Your task to perform on an android device: toggle improve location accuracy Image 0: 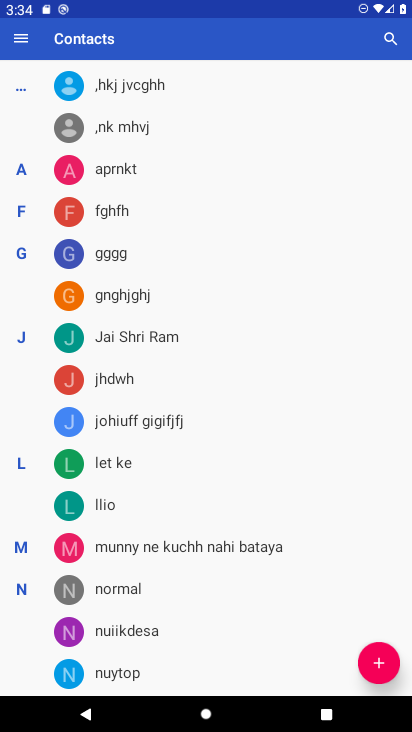
Step 0: press home button
Your task to perform on an android device: toggle improve location accuracy Image 1: 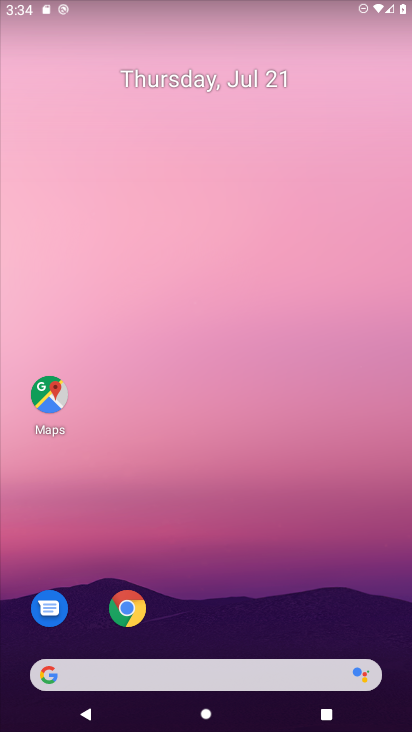
Step 1: drag from (202, 630) to (177, 135)
Your task to perform on an android device: toggle improve location accuracy Image 2: 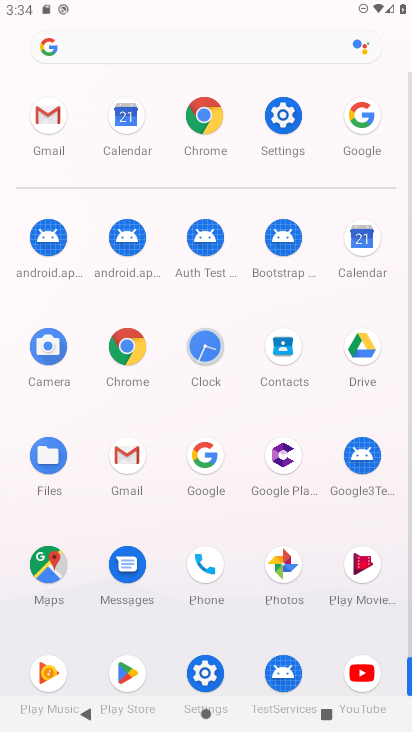
Step 2: click (265, 129)
Your task to perform on an android device: toggle improve location accuracy Image 3: 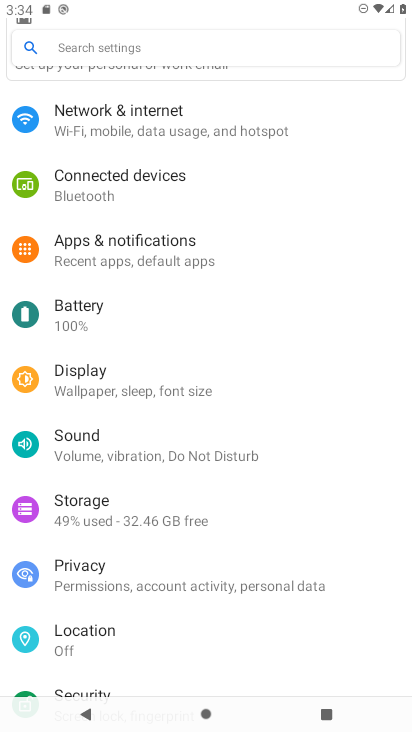
Step 3: click (113, 627)
Your task to perform on an android device: toggle improve location accuracy Image 4: 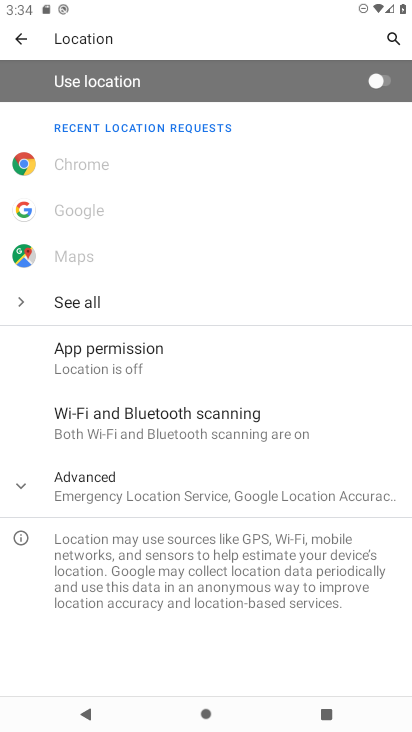
Step 4: click (146, 488)
Your task to perform on an android device: toggle improve location accuracy Image 5: 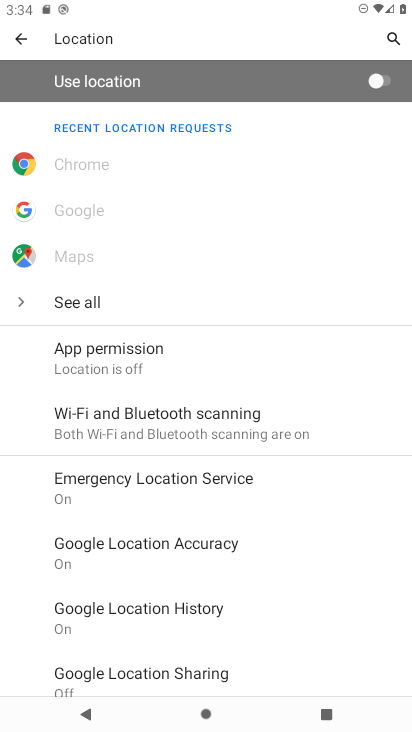
Step 5: click (192, 559)
Your task to perform on an android device: toggle improve location accuracy Image 6: 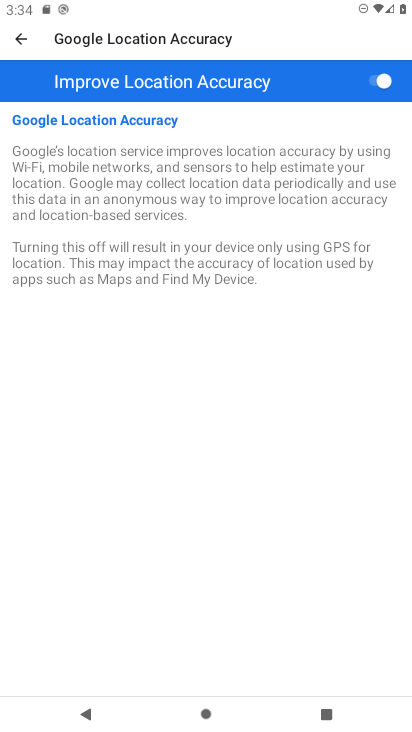
Step 6: click (365, 78)
Your task to perform on an android device: toggle improve location accuracy Image 7: 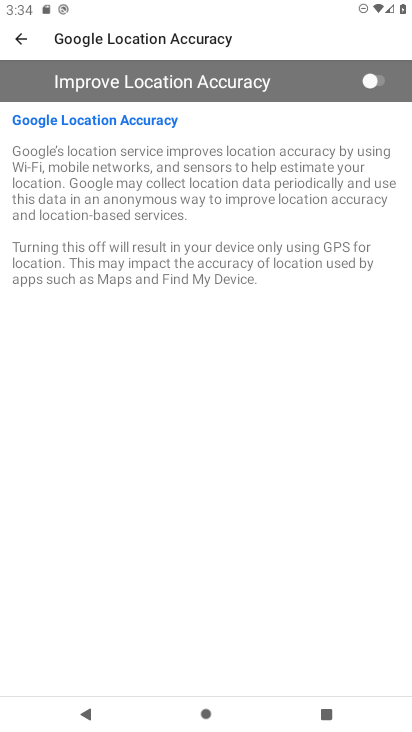
Step 7: task complete